Your task to perform on an android device: Open internet settings Image 0: 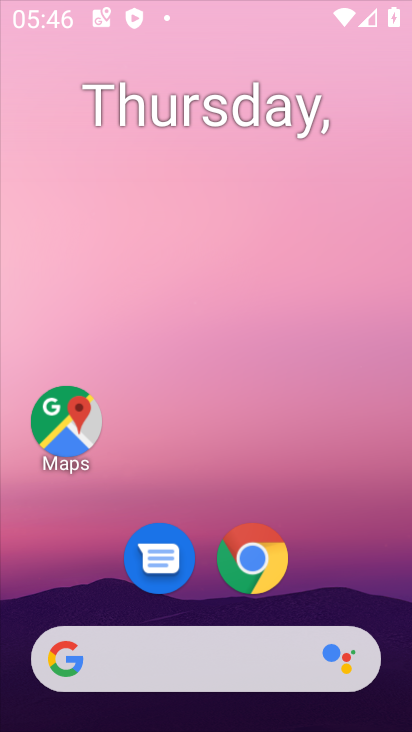
Step 0: drag from (325, 562) to (288, 112)
Your task to perform on an android device: Open internet settings Image 1: 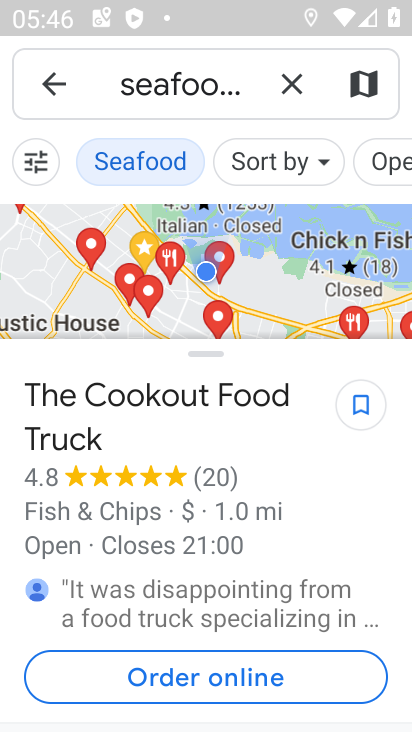
Step 1: press home button
Your task to perform on an android device: Open internet settings Image 2: 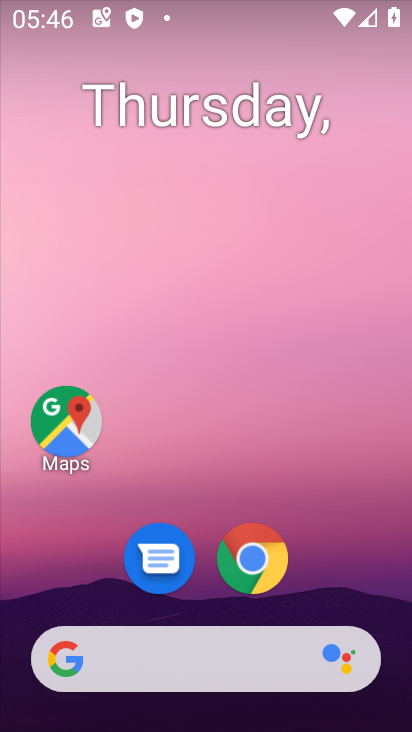
Step 2: drag from (319, 589) to (257, 162)
Your task to perform on an android device: Open internet settings Image 3: 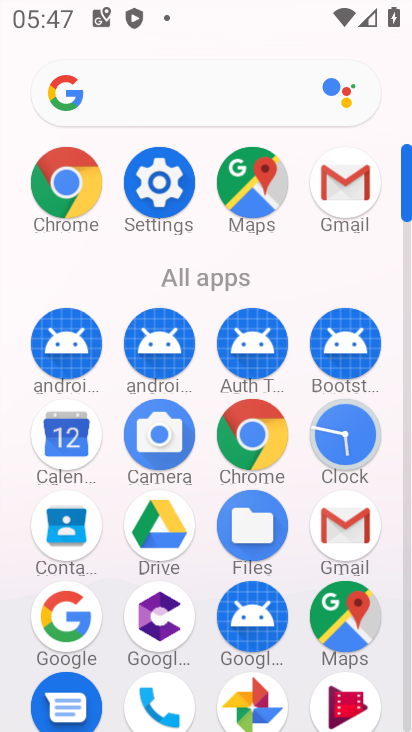
Step 3: drag from (201, 653) to (209, 247)
Your task to perform on an android device: Open internet settings Image 4: 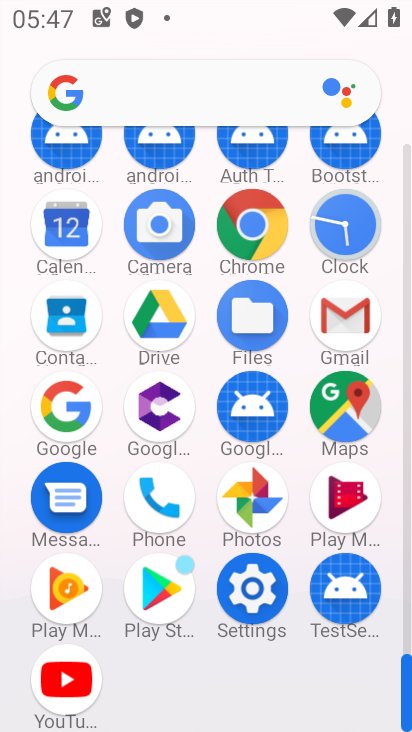
Step 4: click (247, 584)
Your task to perform on an android device: Open internet settings Image 5: 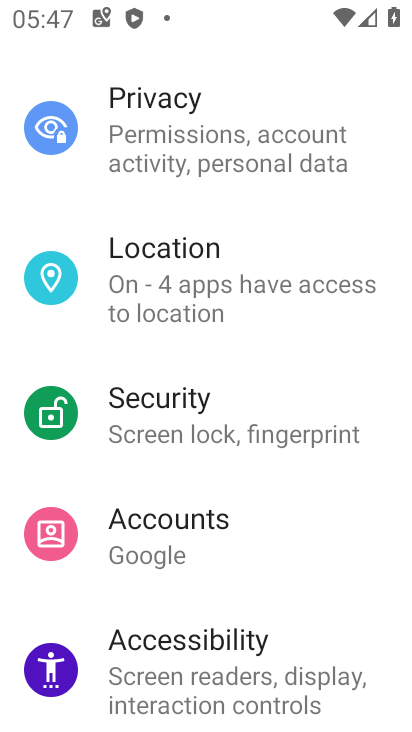
Step 5: drag from (209, 187) to (212, 510)
Your task to perform on an android device: Open internet settings Image 6: 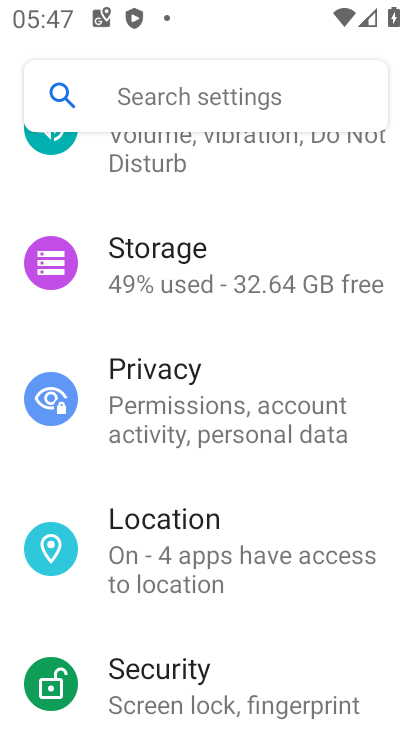
Step 6: drag from (183, 247) to (199, 627)
Your task to perform on an android device: Open internet settings Image 7: 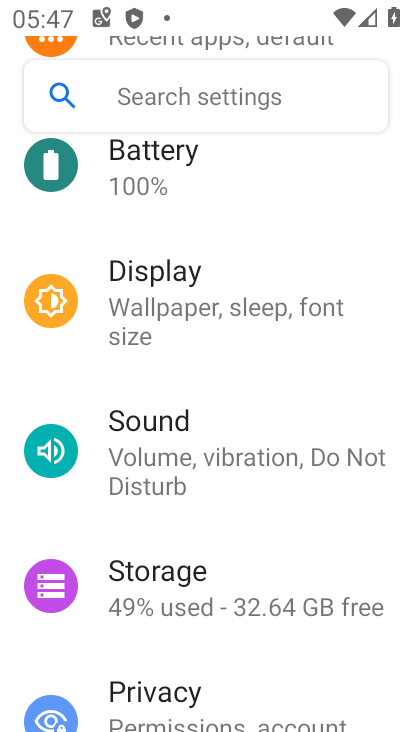
Step 7: drag from (196, 233) to (218, 595)
Your task to perform on an android device: Open internet settings Image 8: 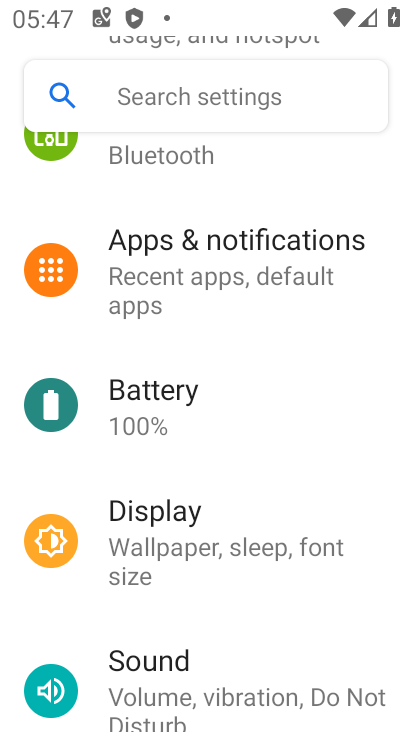
Step 8: drag from (235, 253) to (252, 631)
Your task to perform on an android device: Open internet settings Image 9: 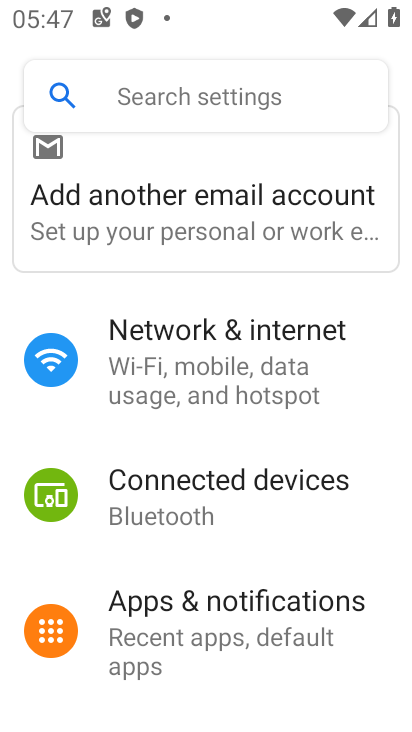
Step 9: click (166, 323)
Your task to perform on an android device: Open internet settings Image 10: 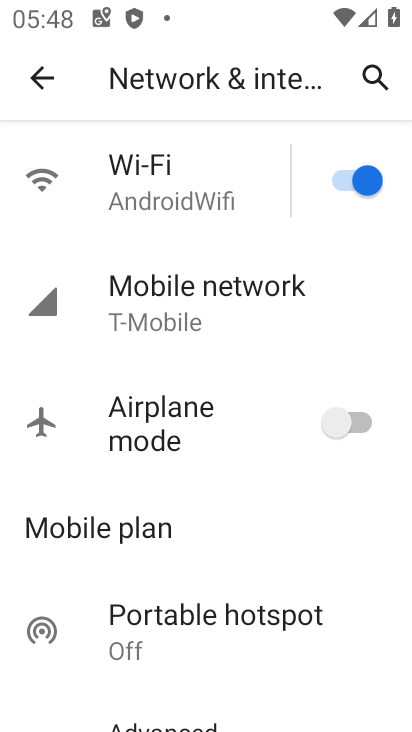
Step 10: task complete